Your task to perform on an android device: toggle wifi Image 0: 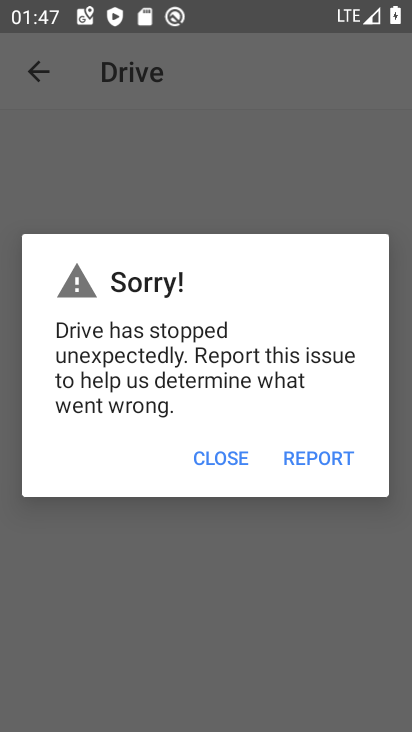
Step 0: press home button
Your task to perform on an android device: toggle wifi Image 1: 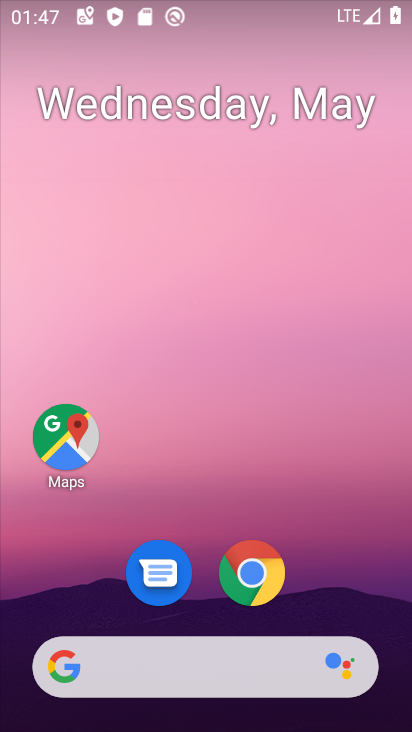
Step 1: drag from (298, 587) to (311, 326)
Your task to perform on an android device: toggle wifi Image 2: 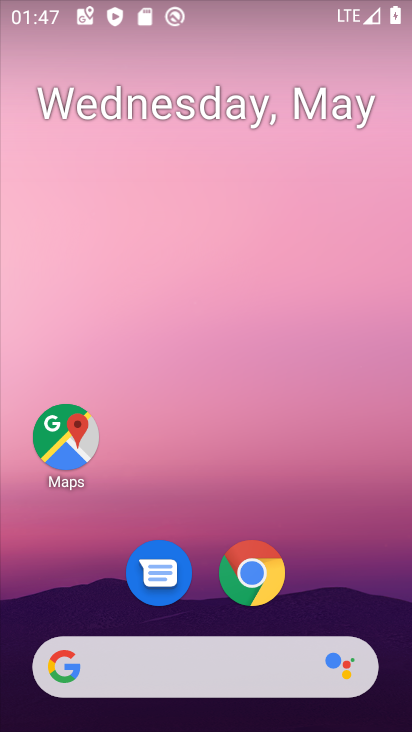
Step 2: drag from (341, 602) to (312, 288)
Your task to perform on an android device: toggle wifi Image 3: 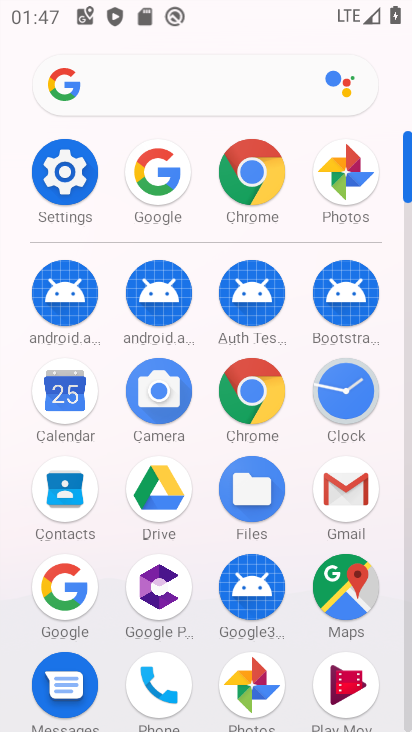
Step 3: click (71, 163)
Your task to perform on an android device: toggle wifi Image 4: 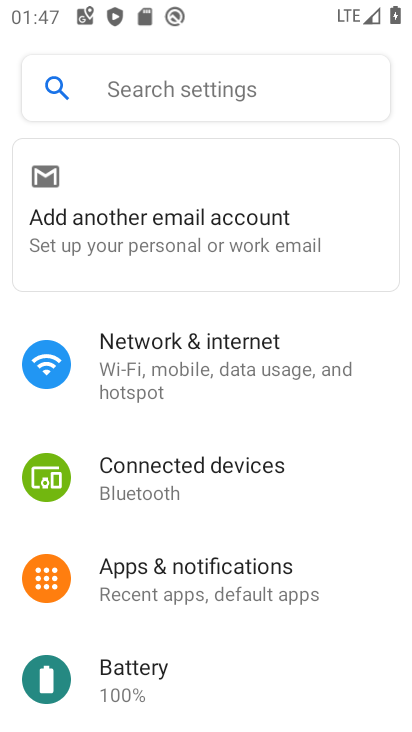
Step 4: click (250, 377)
Your task to perform on an android device: toggle wifi Image 5: 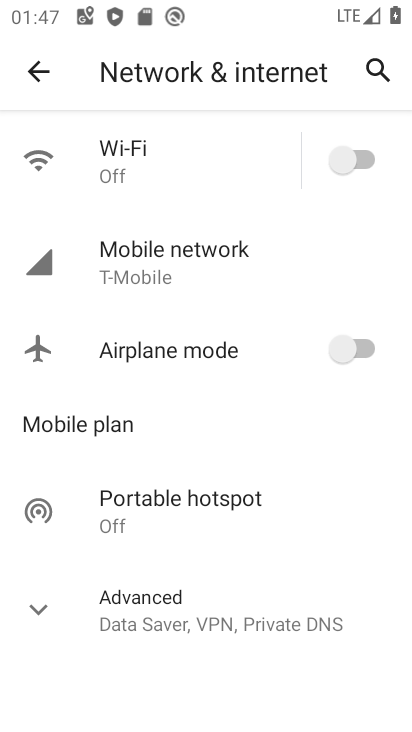
Step 5: click (358, 160)
Your task to perform on an android device: toggle wifi Image 6: 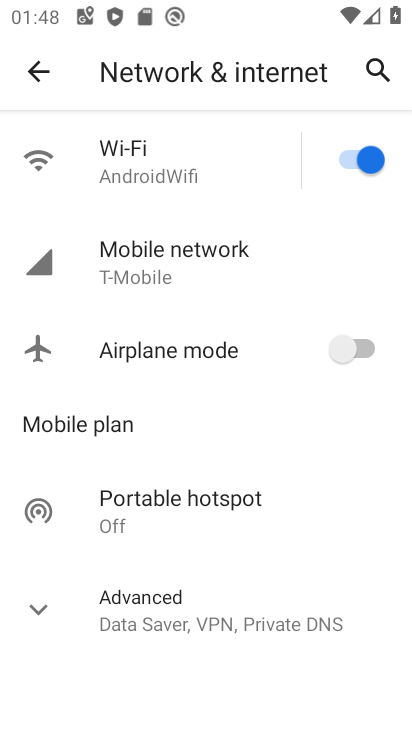
Step 6: task complete